Your task to perform on an android device: toggle location history Image 0: 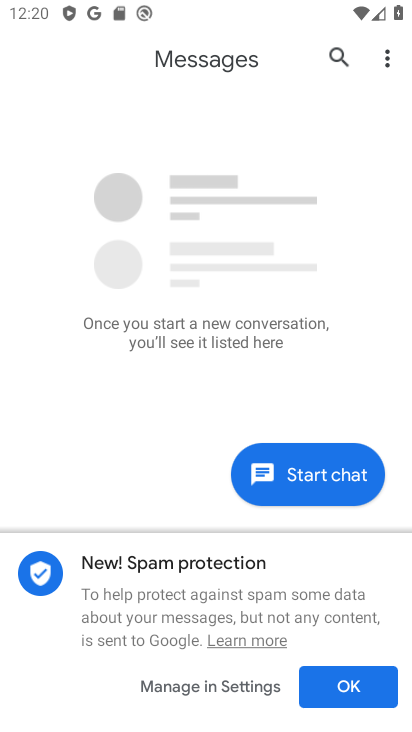
Step 0: press home button
Your task to perform on an android device: toggle location history Image 1: 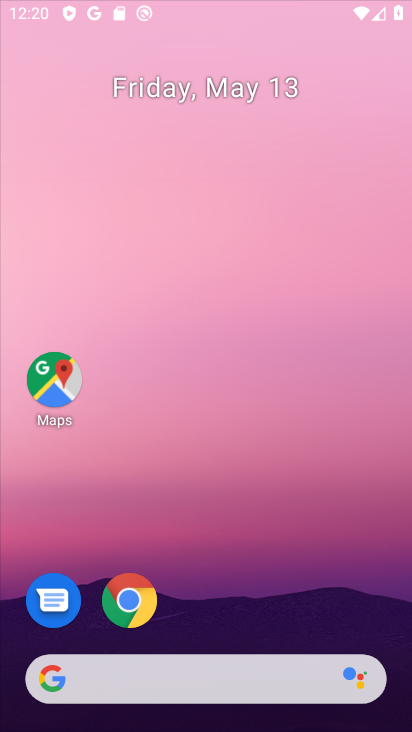
Step 1: drag from (164, 600) to (239, 227)
Your task to perform on an android device: toggle location history Image 2: 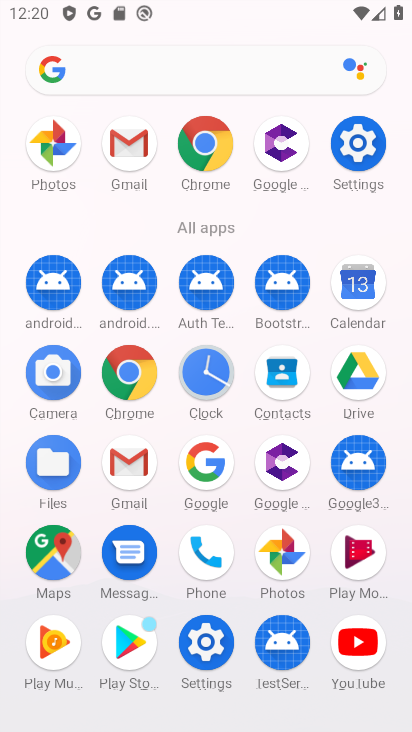
Step 2: click (196, 643)
Your task to perform on an android device: toggle location history Image 3: 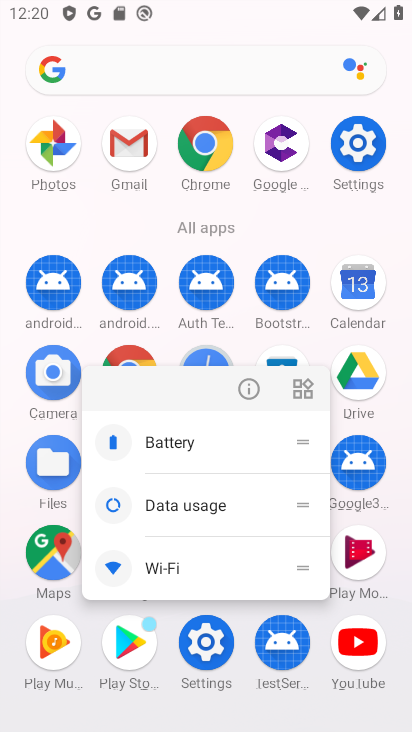
Step 3: click (239, 378)
Your task to perform on an android device: toggle location history Image 4: 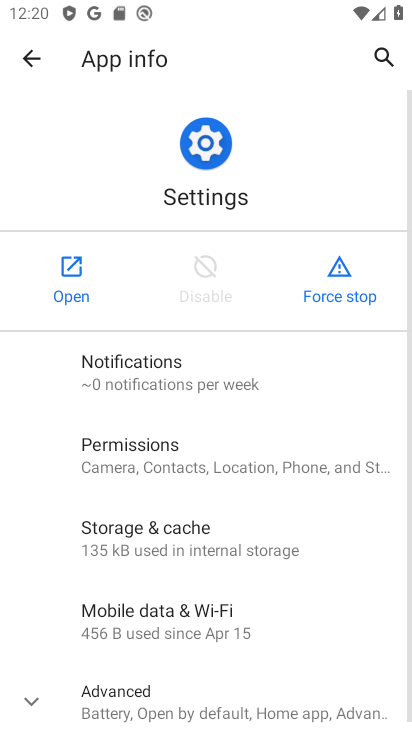
Step 4: click (89, 292)
Your task to perform on an android device: toggle location history Image 5: 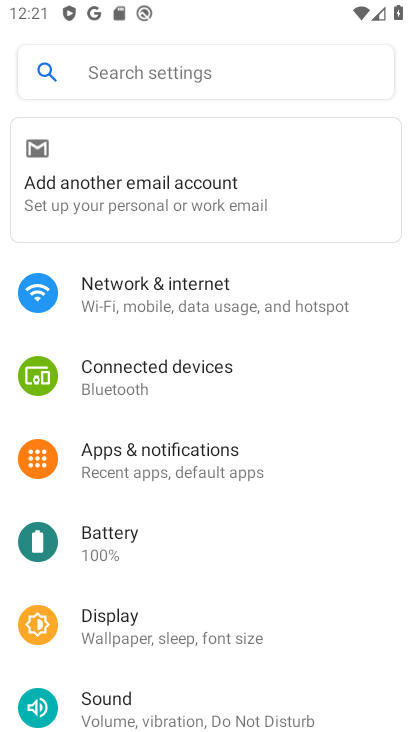
Step 5: drag from (218, 628) to (278, 230)
Your task to perform on an android device: toggle location history Image 6: 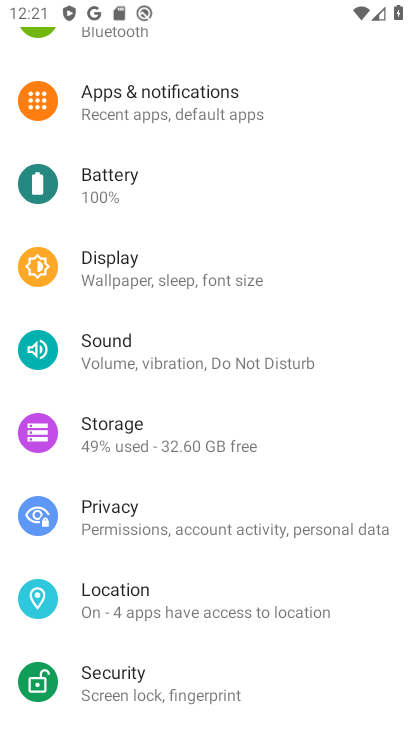
Step 6: click (156, 594)
Your task to perform on an android device: toggle location history Image 7: 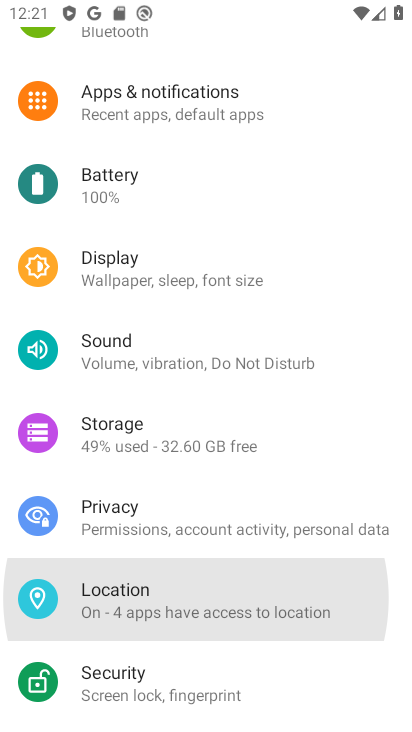
Step 7: click (156, 594)
Your task to perform on an android device: toggle location history Image 8: 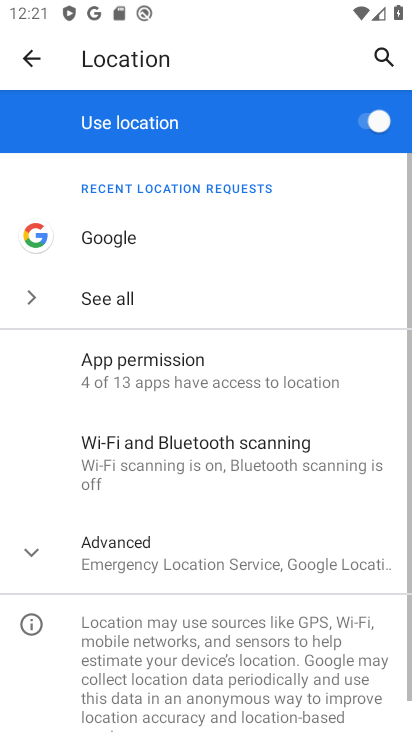
Step 8: click (205, 564)
Your task to perform on an android device: toggle location history Image 9: 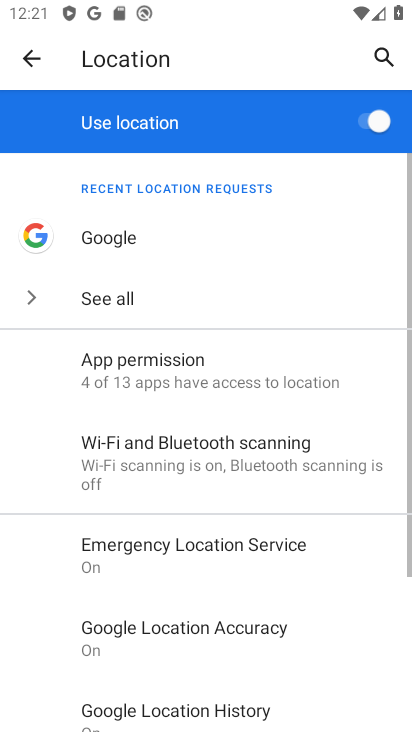
Step 9: drag from (209, 660) to (238, 269)
Your task to perform on an android device: toggle location history Image 10: 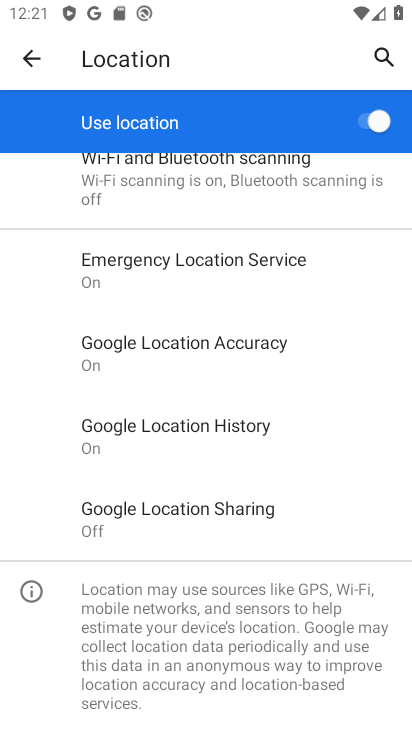
Step 10: click (243, 448)
Your task to perform on an android device: toggle location history Image 11: 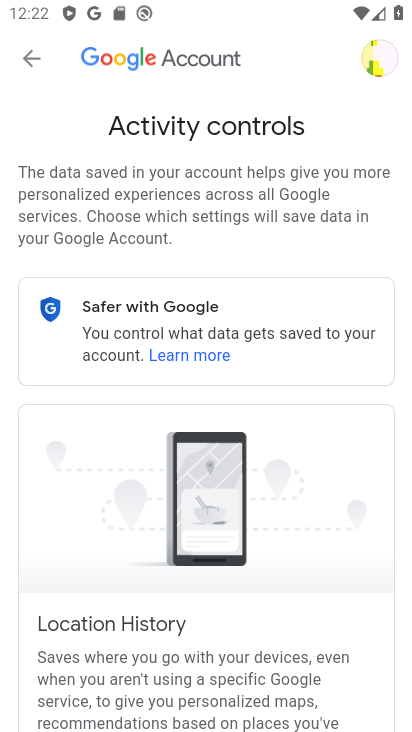
Step 11: drag from (189, 511) to (274, 297)
Your task to perform on an android device: toggle location history Image 12: 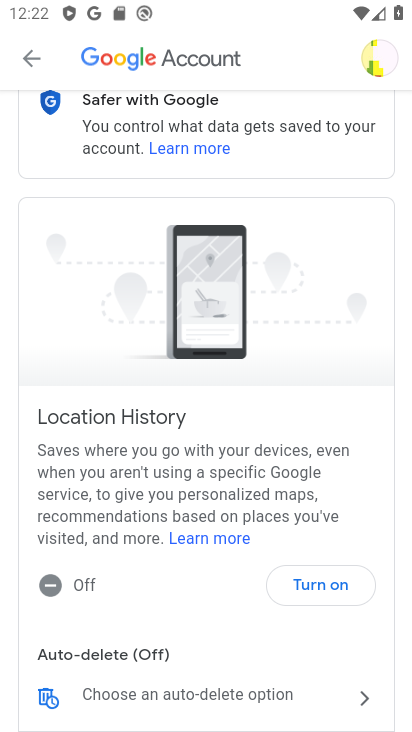
Step 12: click (327, 581)
Your task to perform on an android device: toggle location history Image 13: 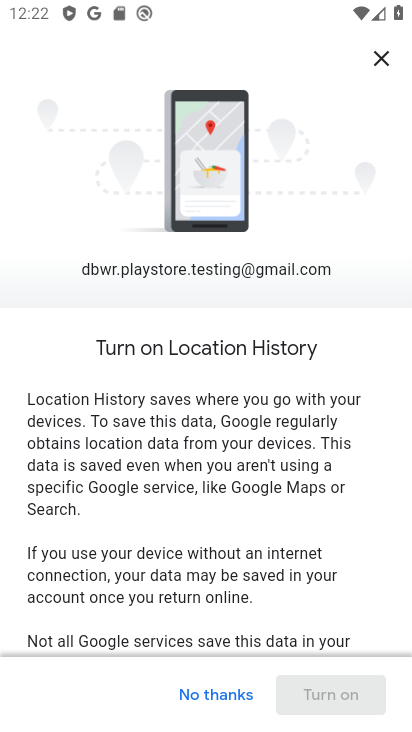
Step 13: drag from (297, 591) to (331, 156)
Your task to perform on an android device: toggle location history Image 14: 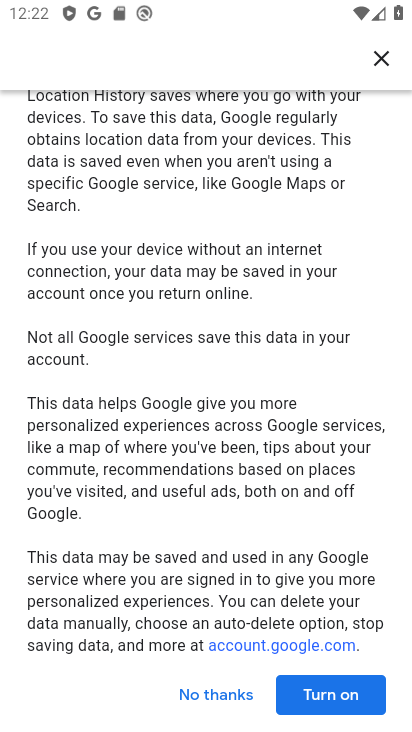
Step 14: click (319, 689)
Your task to perform on an android device: toggle location history Image 15: 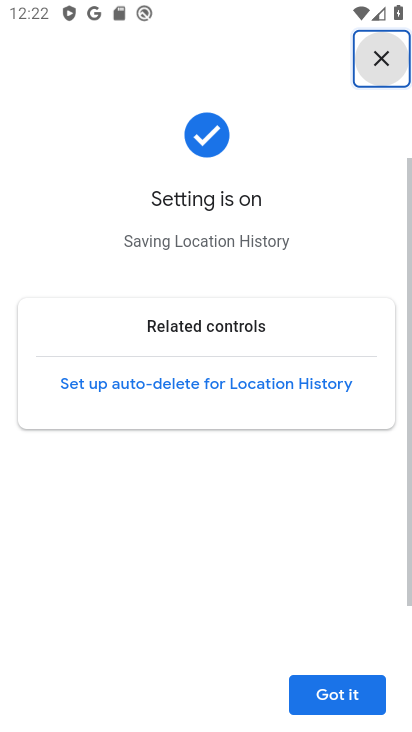
Step 15: task complete